Your task to perform on an android device: open sync settings in chrome Image 0: 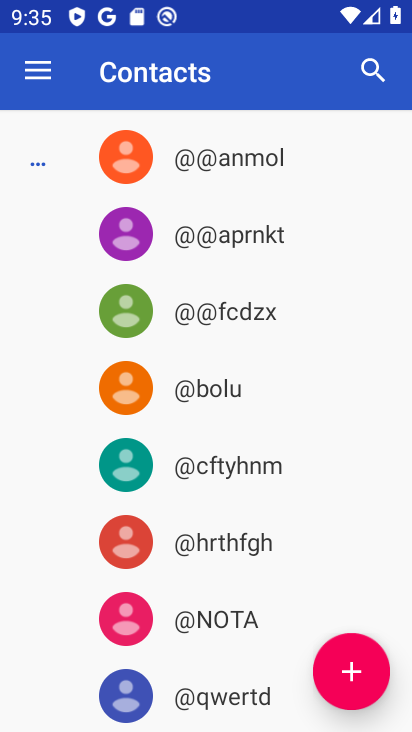
Step 0: press home button
Your task to perform on an android device: open sync settings in chrome Image 1: 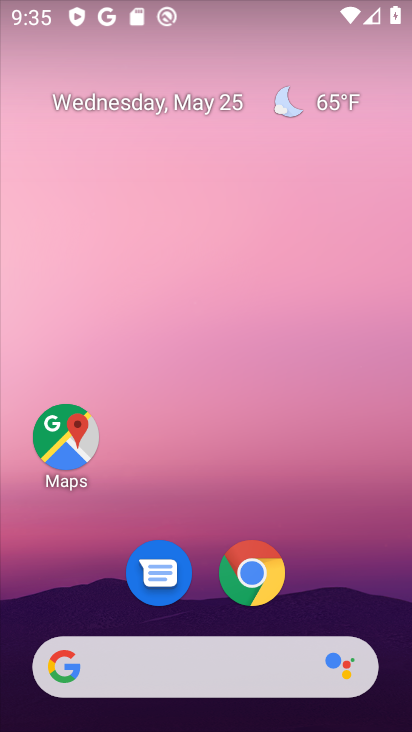
Step 1: drag from (315, 535) to (282, 65)
Your task to perform on an android device: open sync settings in chrome Image 2: 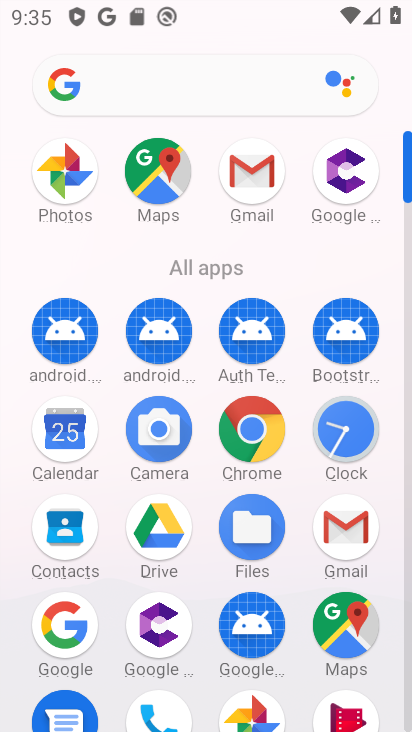
Step 2: click (246, 430)
Your task to perform on an android device: open sync settings in chrome Image 3: 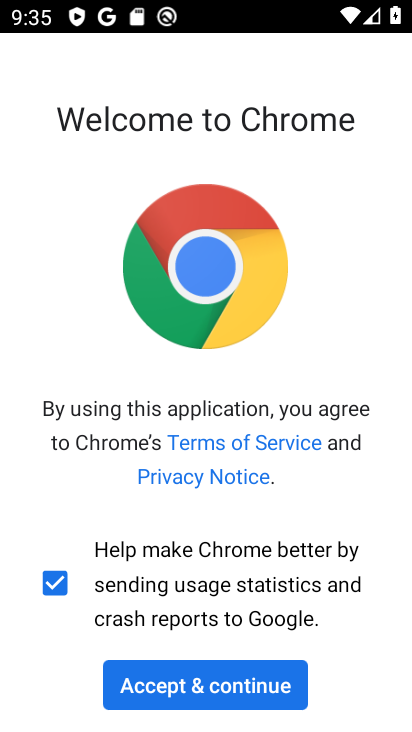
Step 3: click (228, 700)
Your task to perform on an android device: open sync settings in chrome Image 4: 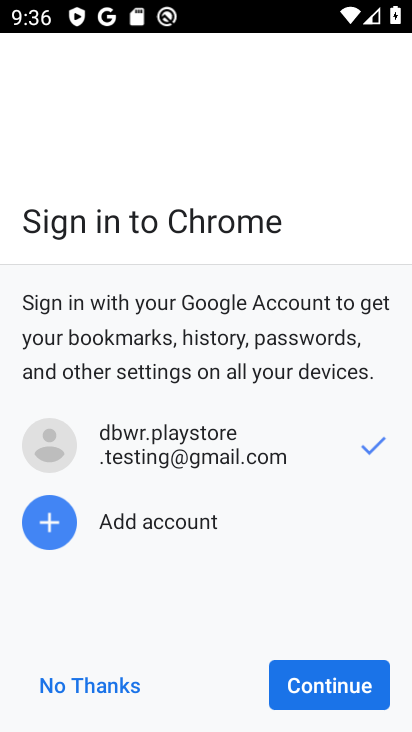
Step 4: click (284, 693)
Your task to perform on an android device: open sync settings in chrome Image 5: 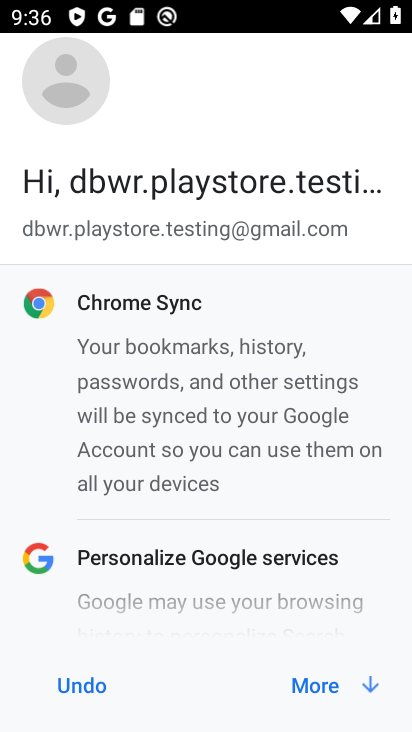
Step 5: click (289, 686)
Your task to perform on an android device: open sync settings in chrome Image 6: 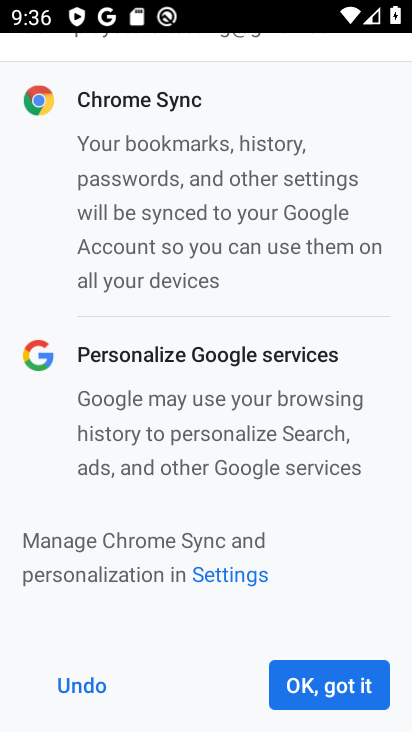
Step 6: click (296, 684)
Your task to perform on an android device: open sync settings in chrome Image 7: 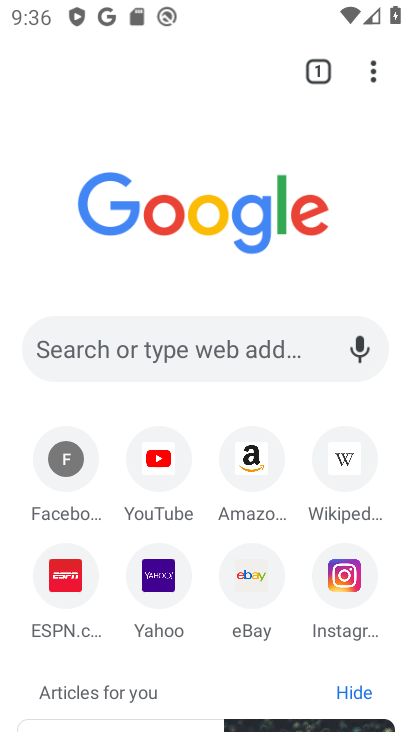
Step 7: click (383, 67)
Your task to perform on an android device: open sync settings in chrome Image 8: 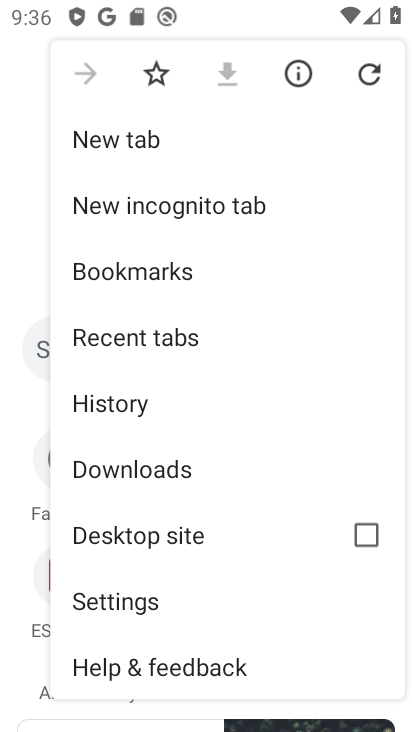
Step 8: click (168, 596)
Your task to perform on an android device: open sync settings in chrome Image 9: 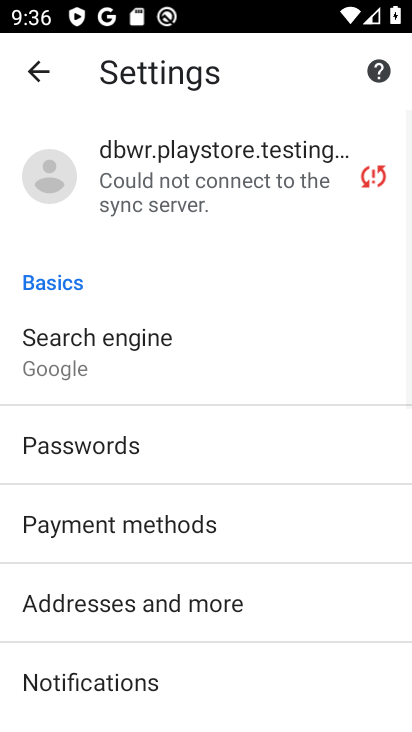
Step 9: click (215, 205)
Your task to perform on an android device: open sync settings in chrome Image 10: 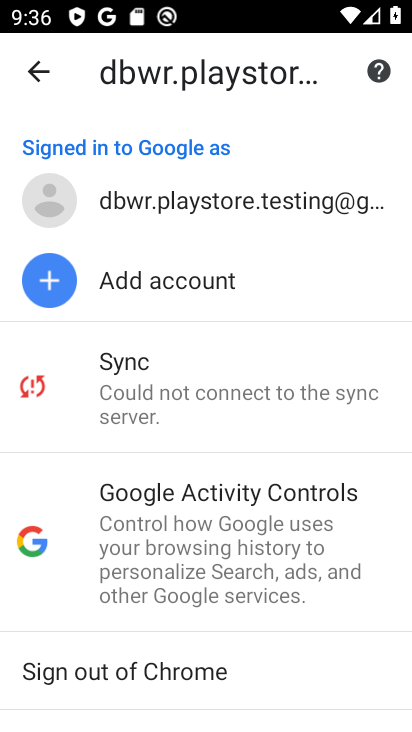
Step 10: click (151, 415)
Your task to perform on an android device: open sync settings in chrome Image 11: 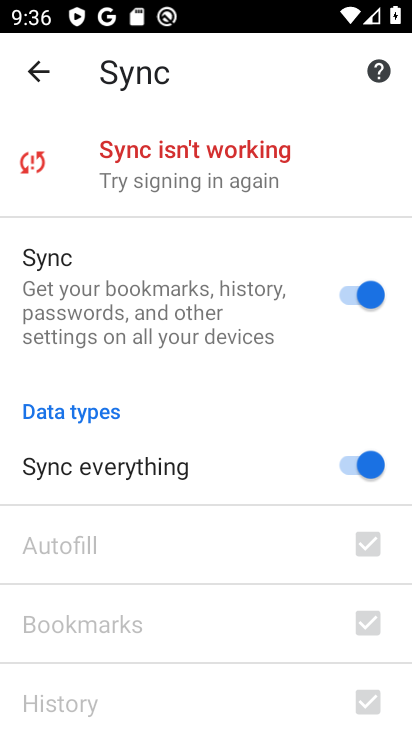
Step 11: task complete